Your task to perform on an android device: Search for "jbl charge 4" on amazon.com, select the first entry, add it to the cart, then select checkout. Image 0: 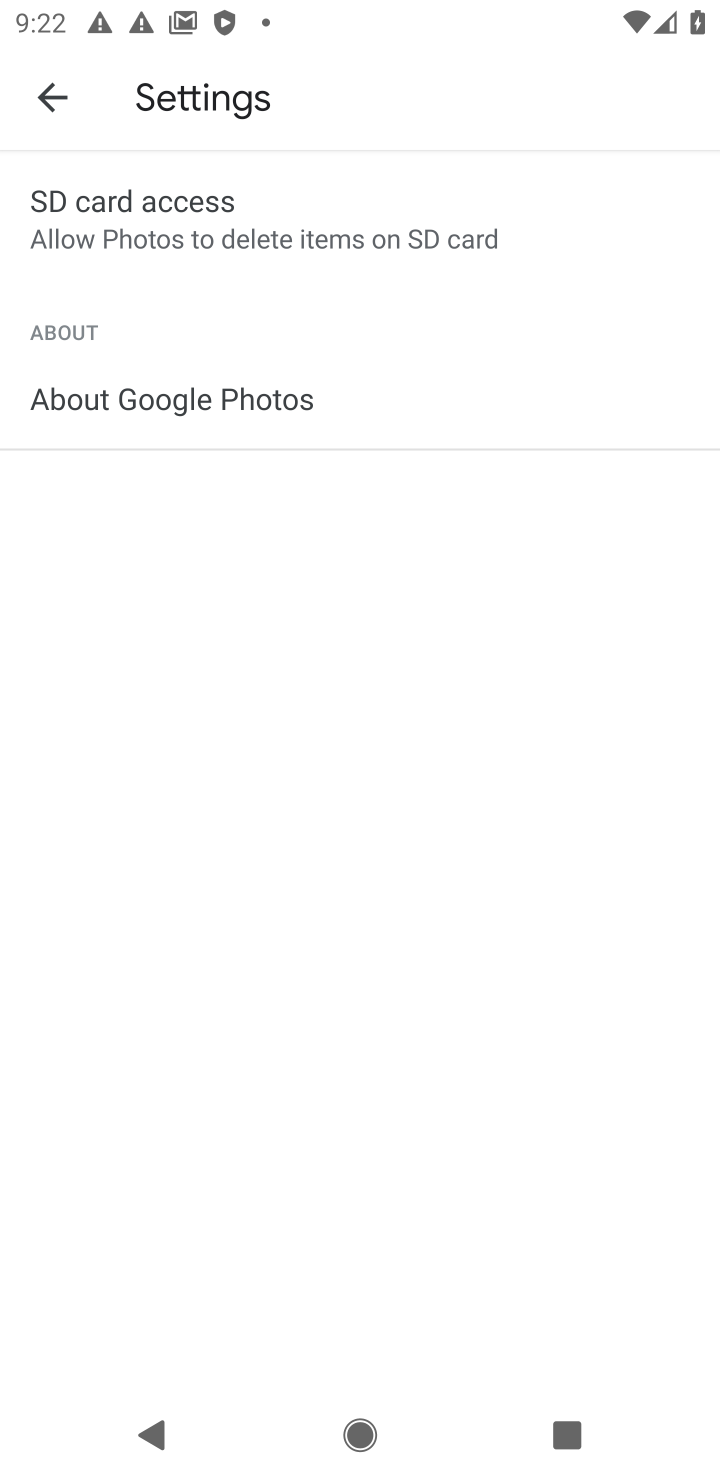
Step 0: press home button
Your task to perform on an android device: Search for "jbl charge 4" on amazon.com, select the first entry, add it to the cart, then select checkout. Image 1: 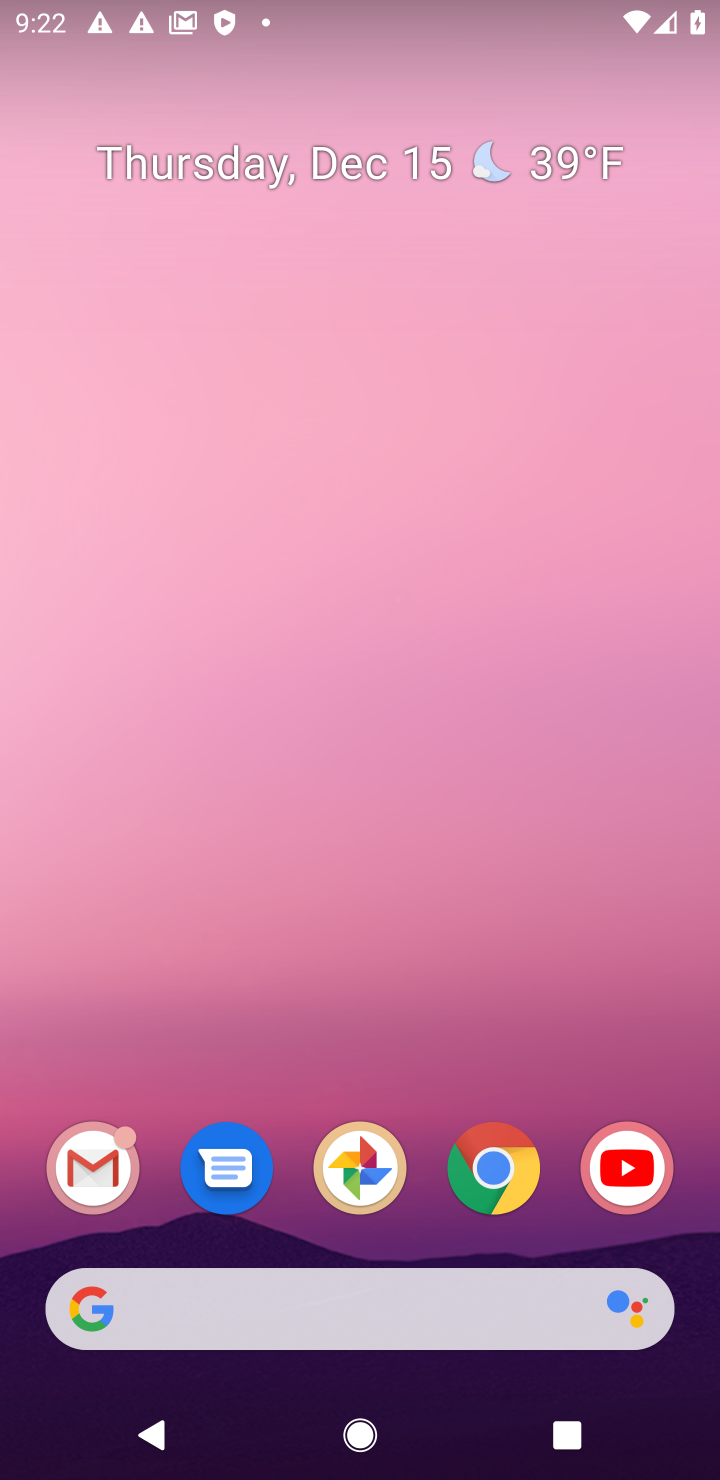
Step 1: click (489, 1157)
Your task to perform on an android device: Search for "jbl charge 4" on amazon.com, select the first entry, add it to the cart, then select checkout. Image 2: 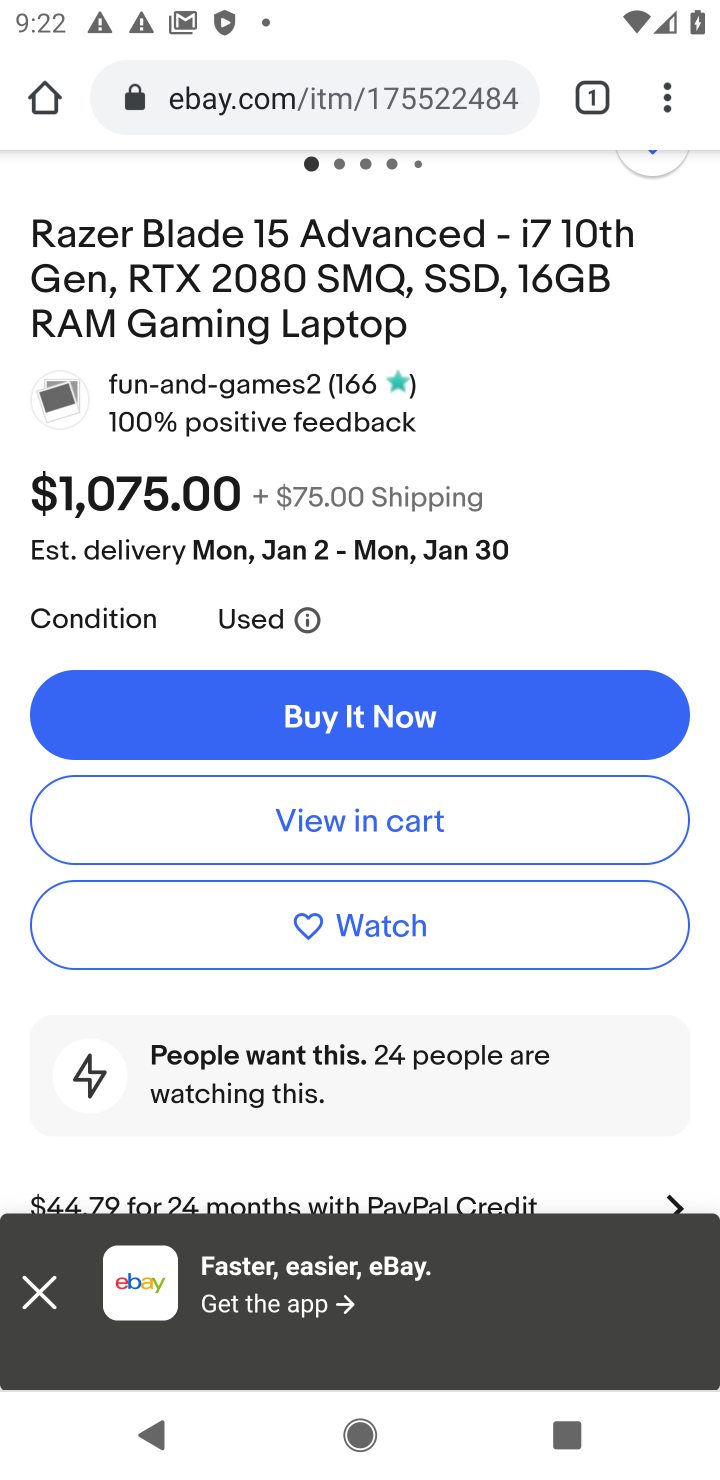
Step 2: click (314, 95)
Your task to perform on an android device: Search for "jbl charge 4" on amazon.com, select the first entry, add it to the cart, then select checkout. Image 3: 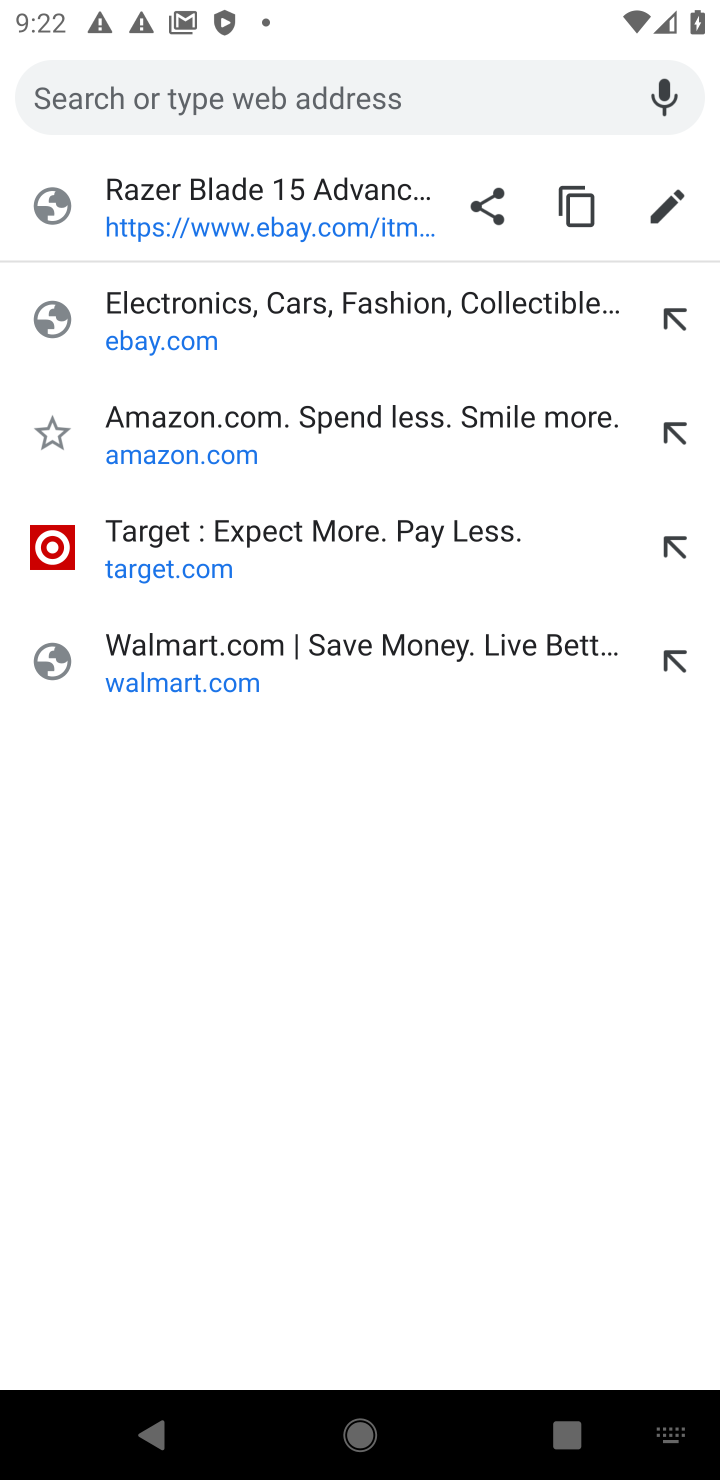
Step 3: click (282, 456)
Your task to perform on an android device: Search for "jbl charge 4" on amazon.com, select the first entry, add it to the cart, then select checkout. Image 4: 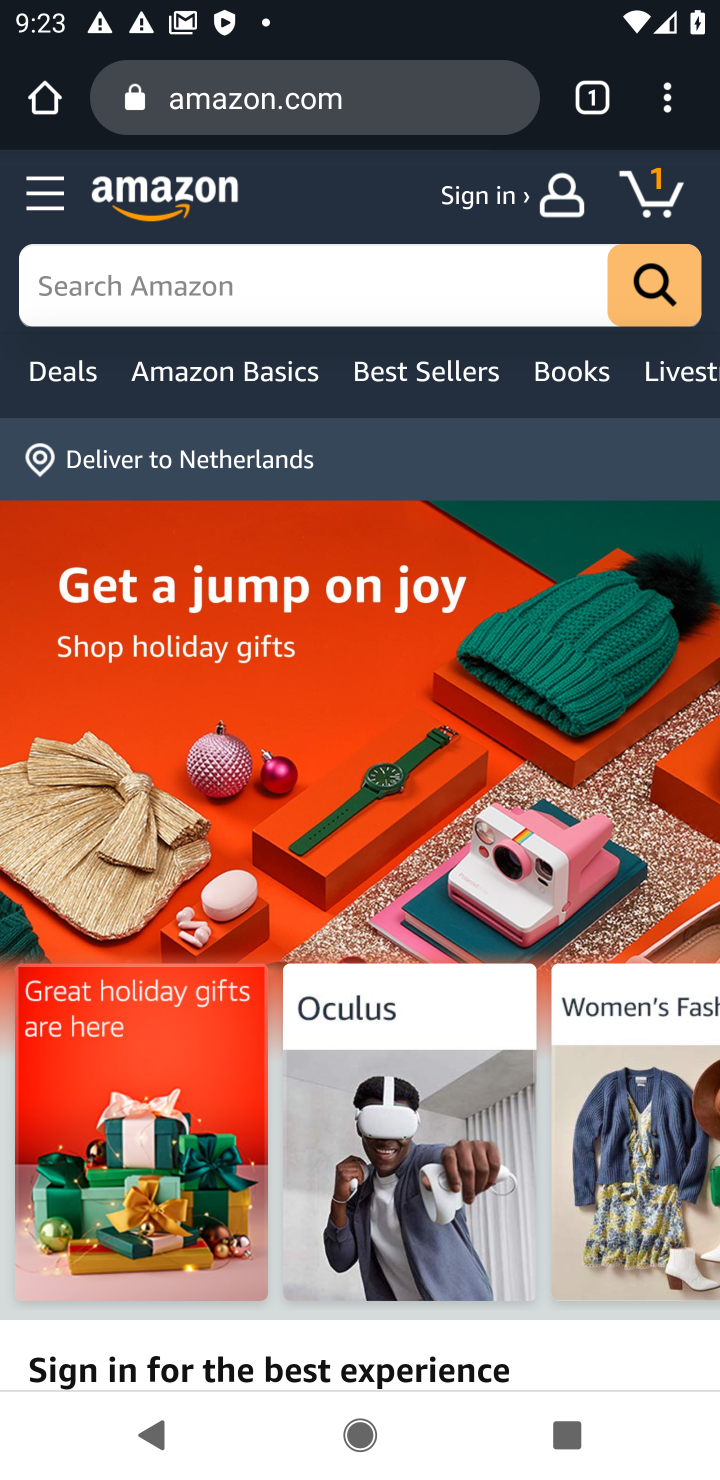
Step 4: click (233, 286)
Your task to perform on an android device: Search for "jbl charge 4" on amazon.com, select the first entry, add it to the cart, then select checkout. Image 5: 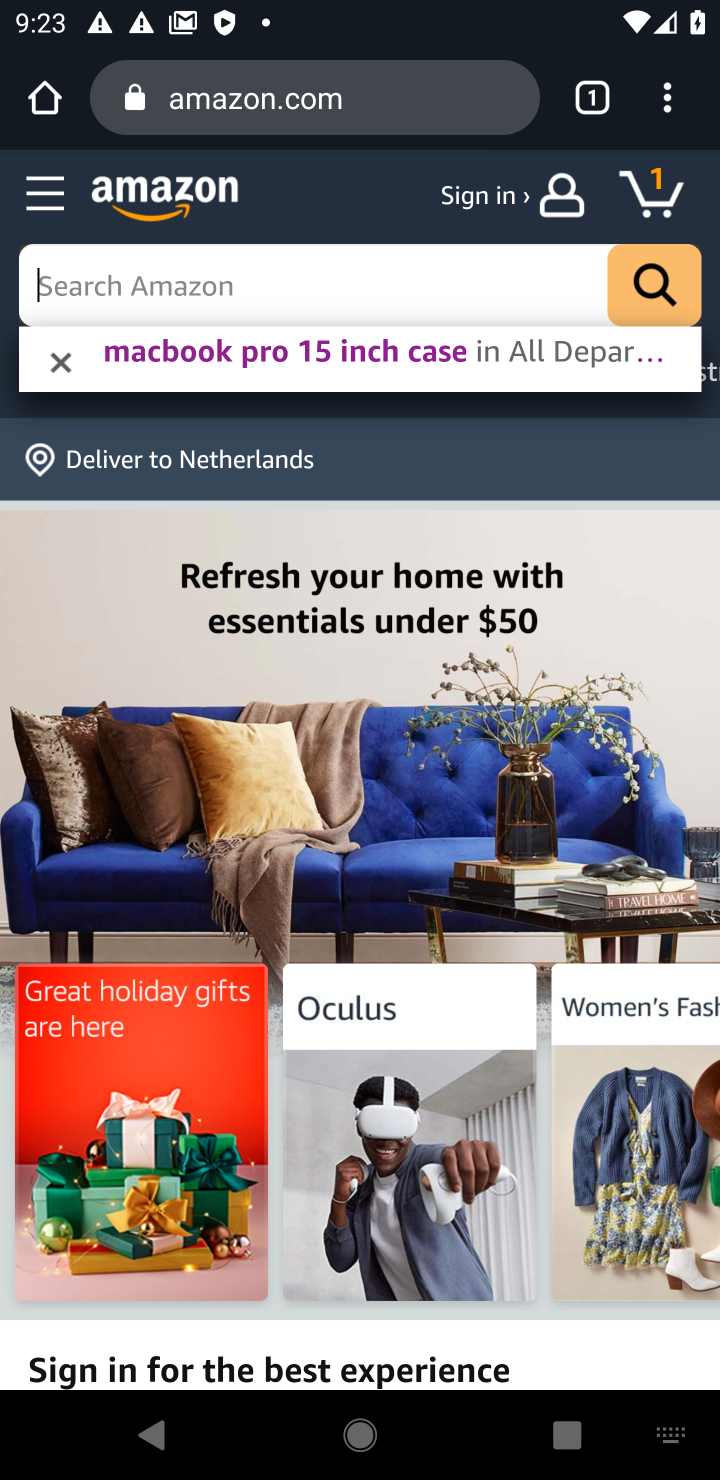
Step 5: type "jbl charge 4"
Your task to perform on an android device: Search for "jbl charge 4" on amazon.com, select the first entry, add it to the cart, then select checkout. Image 6: 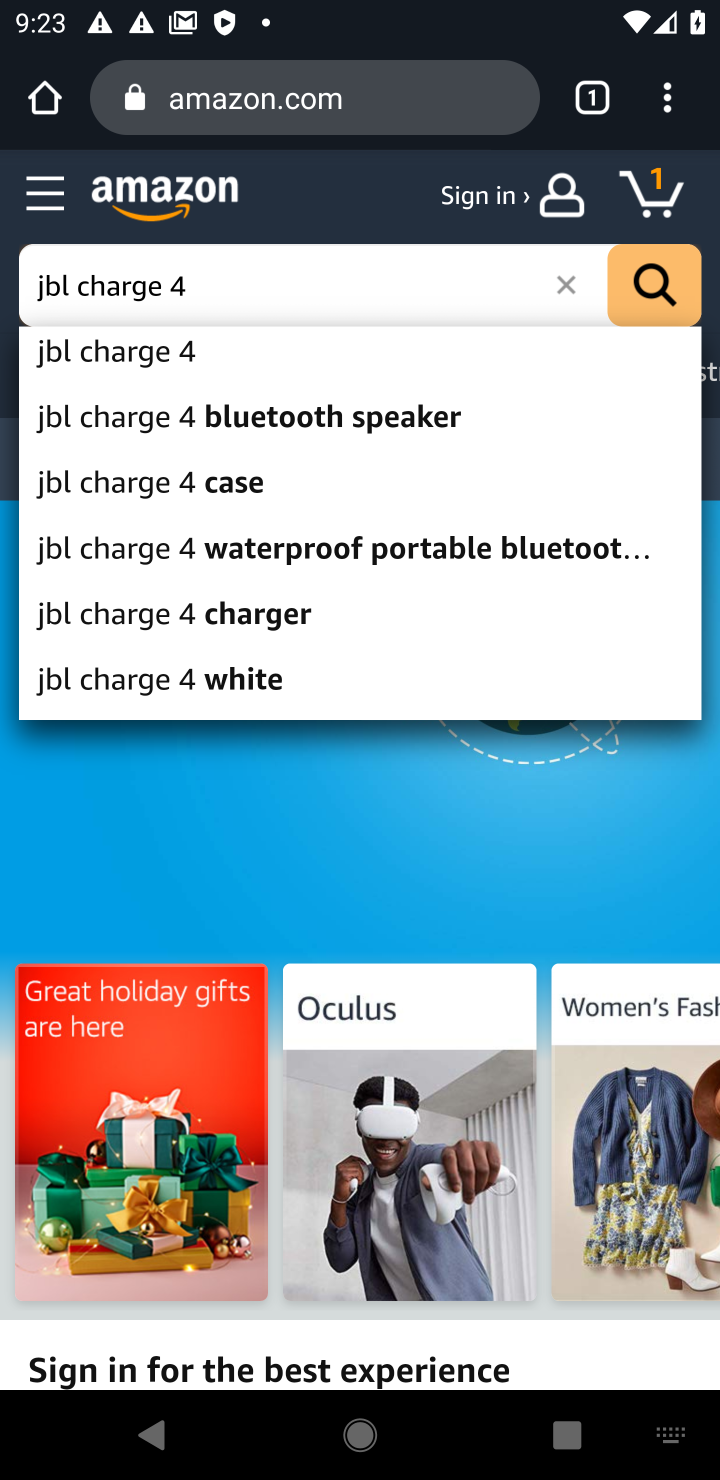
Step 6: click (171, 356)
Your task to perform on an android device: Search for "jbl charge 4" on amazon.com, select the first entry, add it to the cart, then select checkout. Image 7: 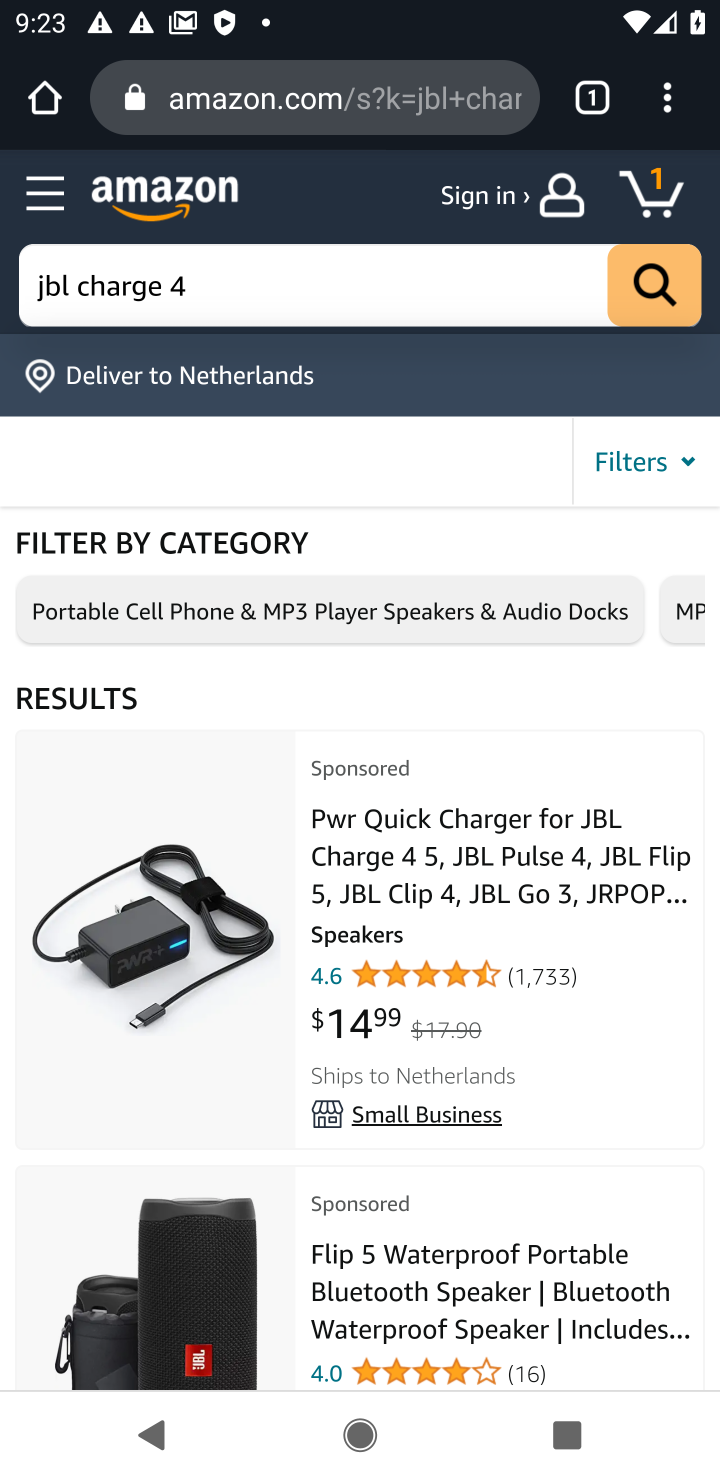
Step 7: click (548, 903)
Your task to perform on an android device: Search for "jbl charge 4" on amazon.com, select the first entry, add it to the cart, then select checkout. Image 8: 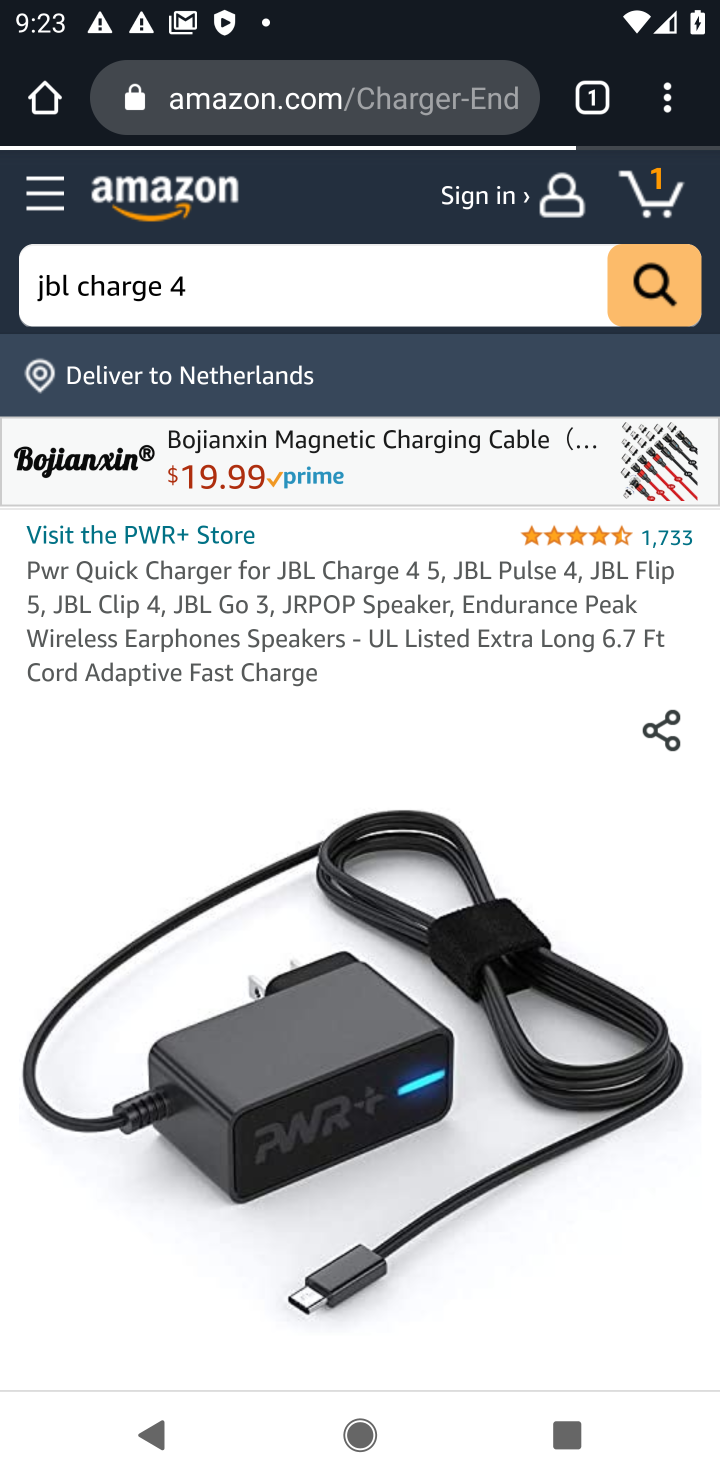
Step 8: drag from (460, 1295) to (391, 506)
Your task to perform on an android device: Search for "jbl charge 4" on amazon.com, select the first entry, add it to the cart, then select checkout. Image 9: 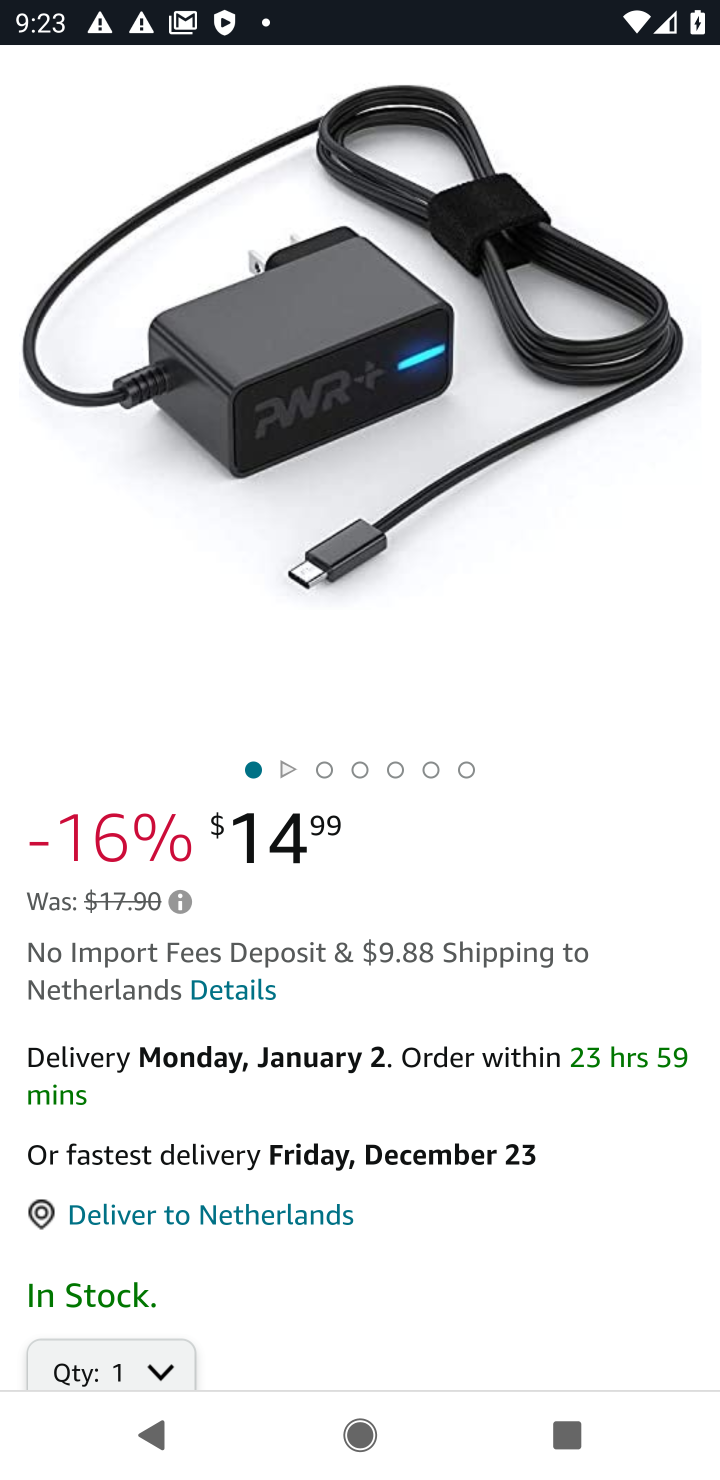
Step 9: drag from (436, 1266) to (406, 358)
Your task to perform on an android device: Search for "jbl charge 4" on amazon.com, select the first entry, add it to the cart, then select checkout. Image 10: 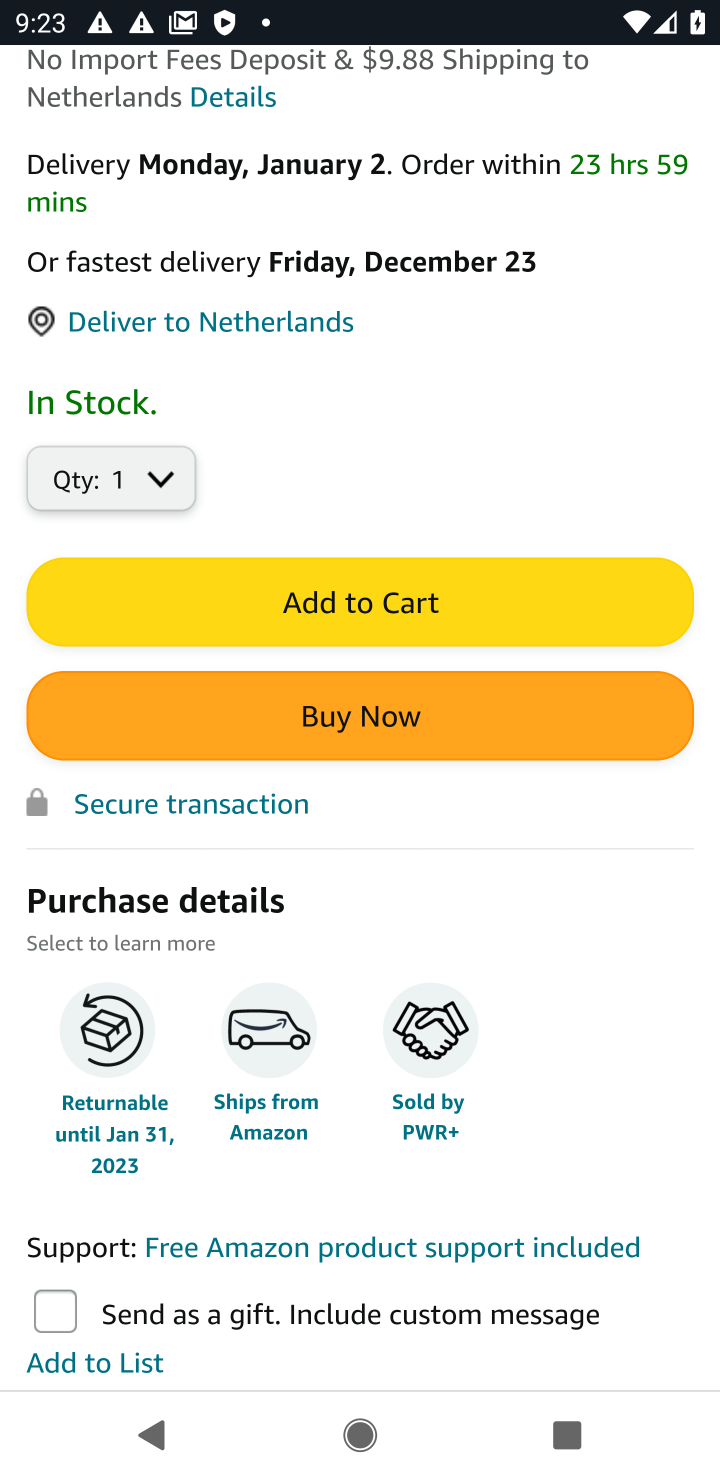
Step 10: click (356, 599)
Your task to perform on an android device: Search for "jbl charge 4" on amazon.com, select the first entry, add it to the cart, then select checkout. Image 11: 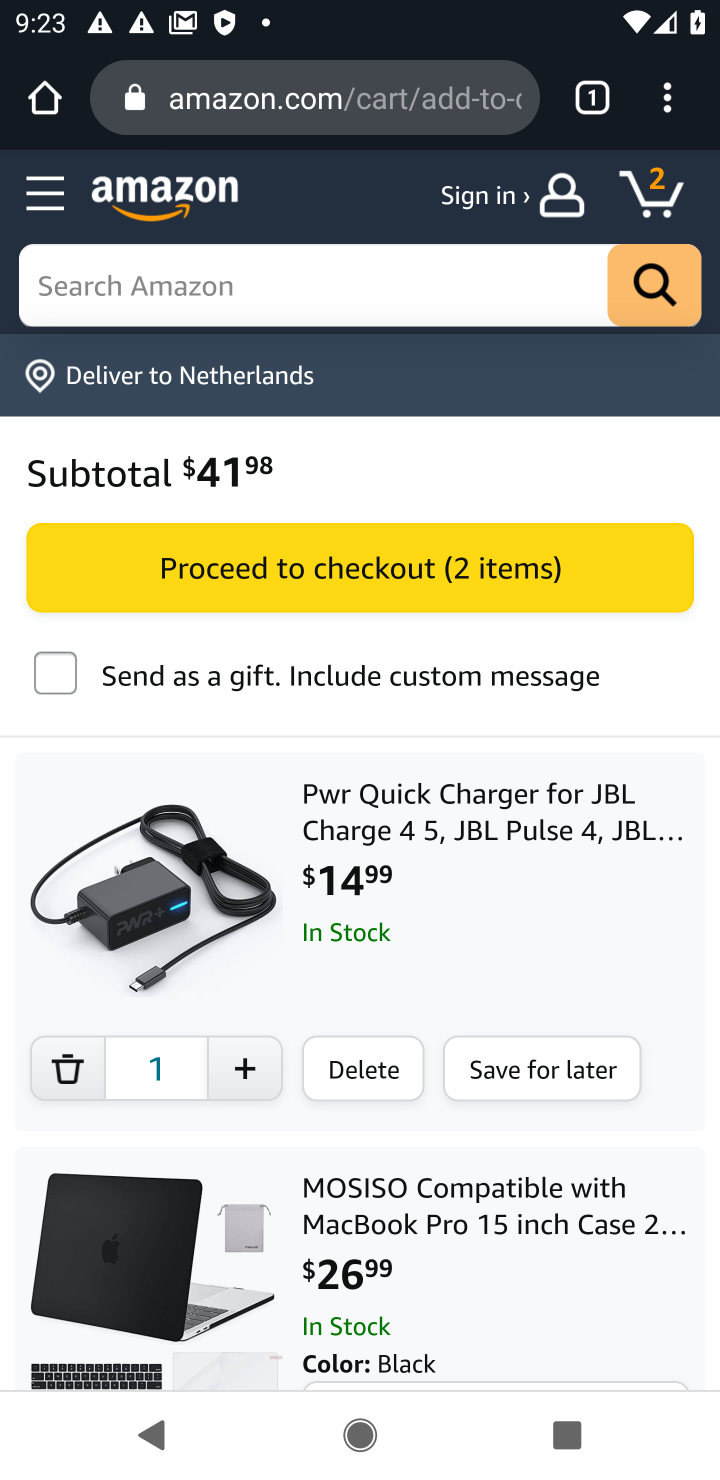
Step 11: click (447, 572)
Your task to perform on an android device: Search for "jbl charge 4" on amazon.com, select the first entry, add it to the cart, then select checkout. Image 12: 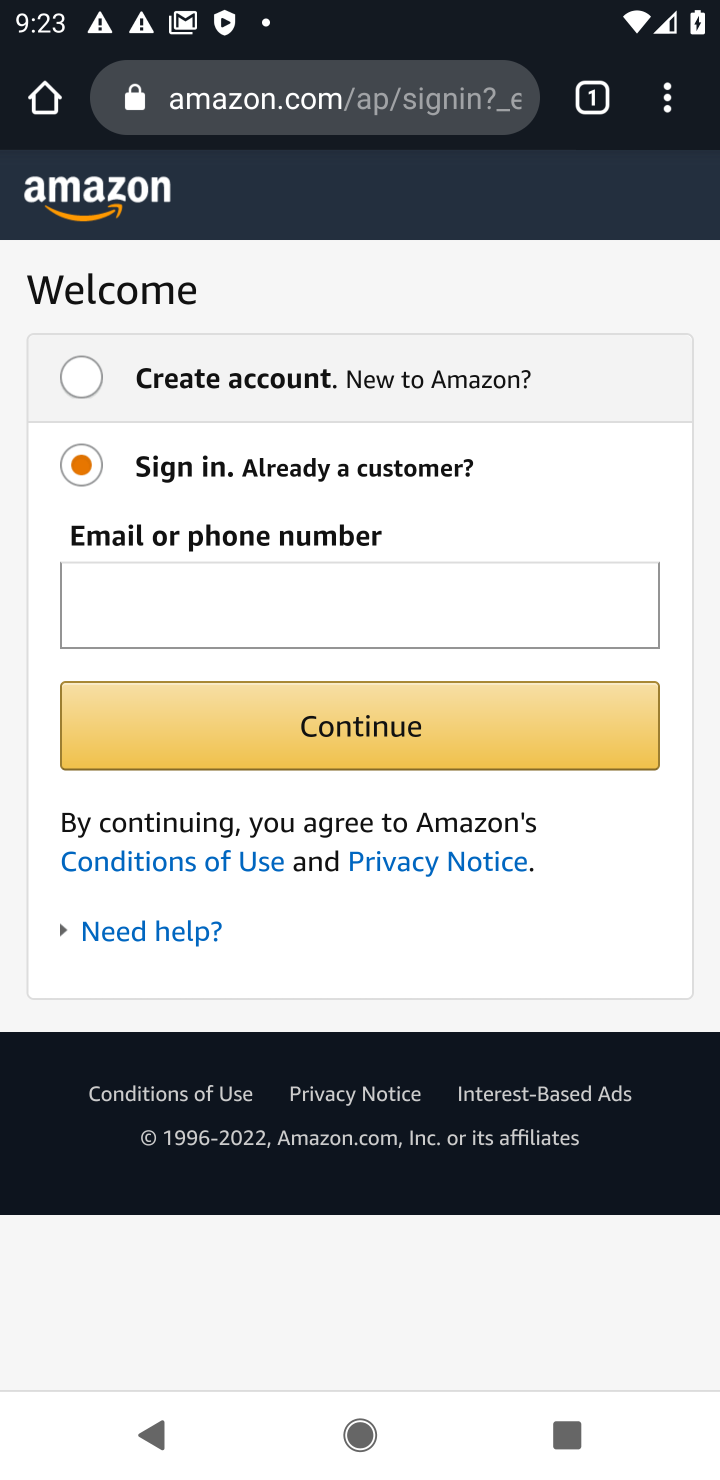
Step 12: task complete